Your task to perform on an android device: find photos in the google photos app Image 0: 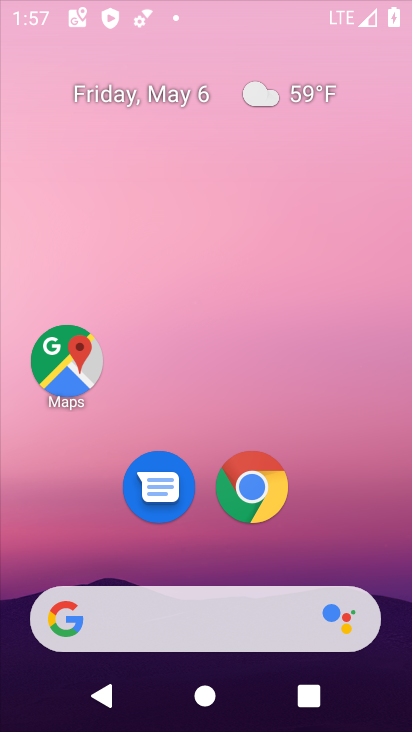
Step 0: drag from (265, 631) to (261, 227)
Your task to perform on an android device: find photos in the google photos app Image 1: 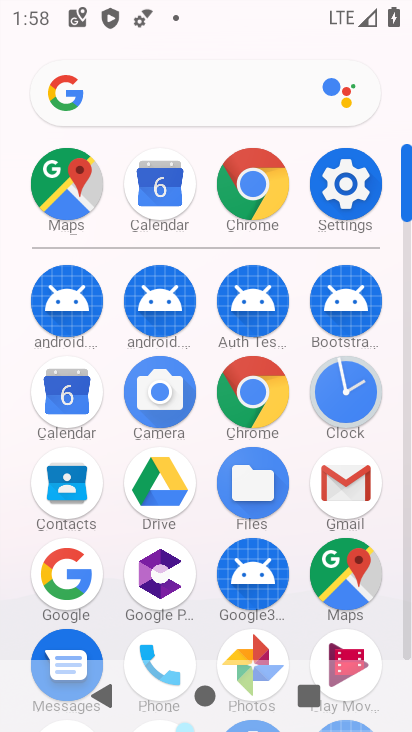
Step 1: drag from (269, 509) to (265, 315)
Your task to perform on an android device: find photos in the google photos app Image 2: 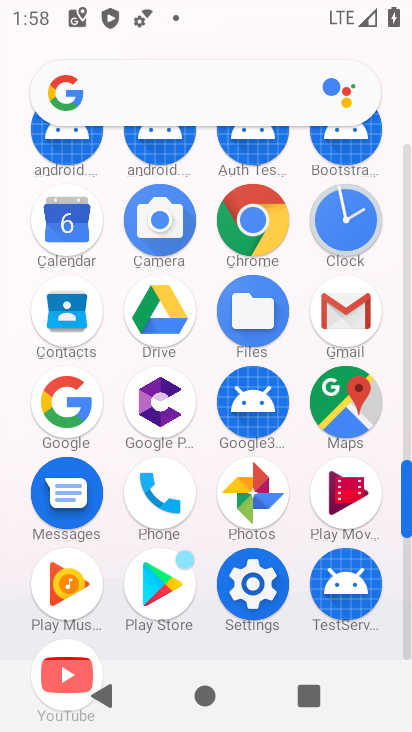
Step 2: click (253, 499)
Your task to perform on an android device: find photos in the google photos app Image 3: 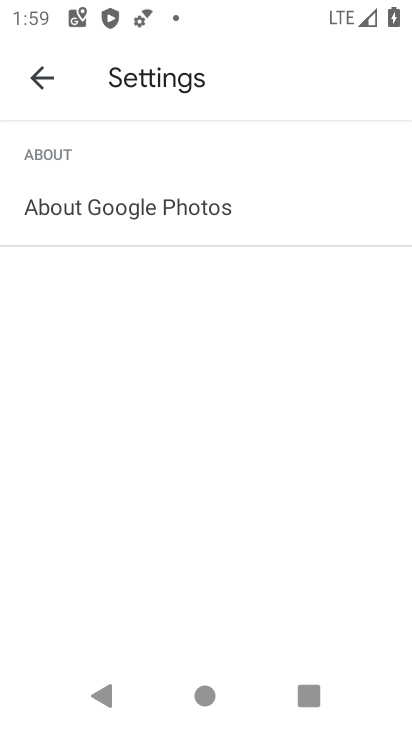
Step 3: click (44, 89)
Your task to perform on an android device: find photos in the google photos app Image 4: 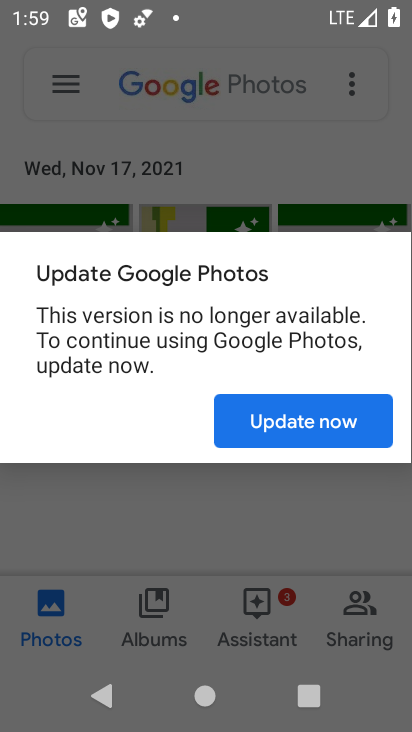
Step 4: task complete